Your task to perform on an android device: Open Youtube and go to "Your channel" Image 0: 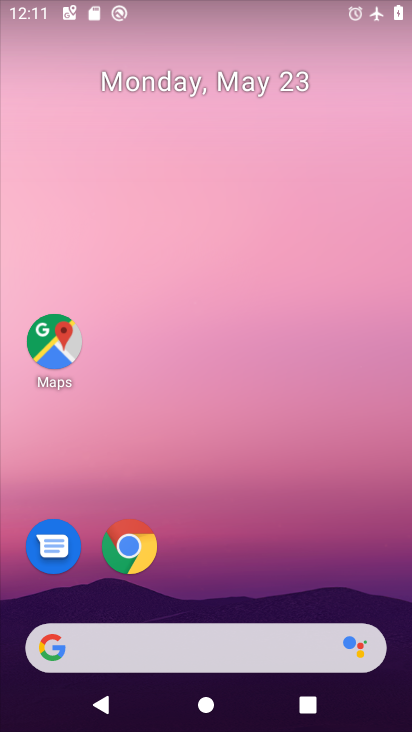
Step 0: drag from (210, 635) to (277, 30)
Your task to perform on an android device: Open Youtube and go to "Your channel" Image 1: 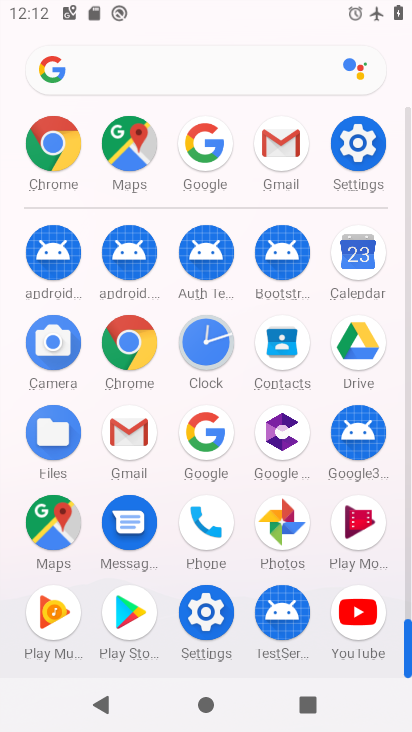
Step 1: click (364, 616)
Your task to perform on an android device: Open Youtube and go to "Your channel" Image 2: 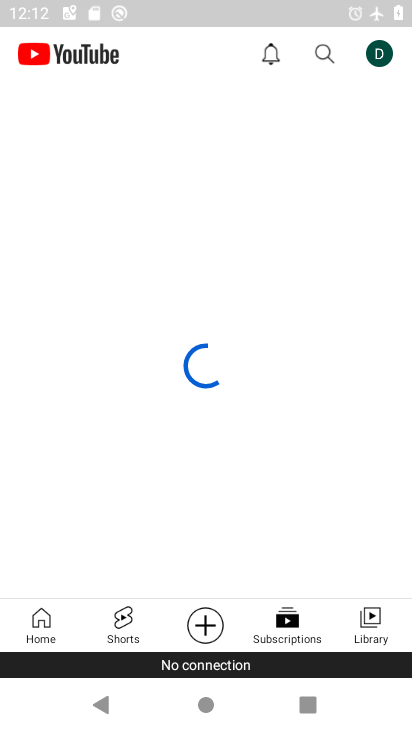
Step 2: click (380, 71)
Your task to perform on an android device: Open Youtube and go to "Your channel" Image 3: 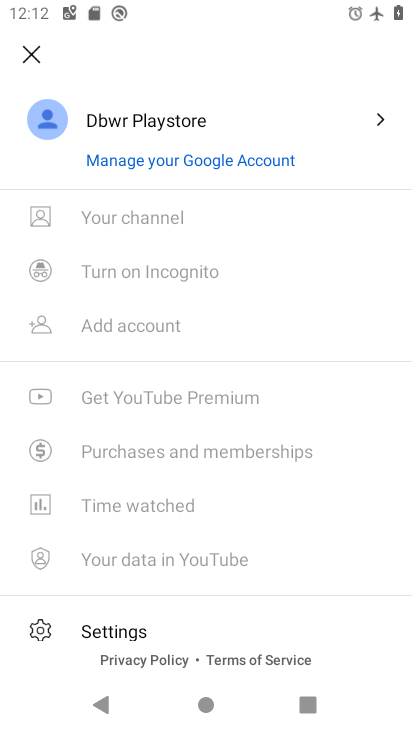
Step 3: click (202, 214)
Your task to perform on an android device: Open Youtube and go to "Your channel" Image 4: 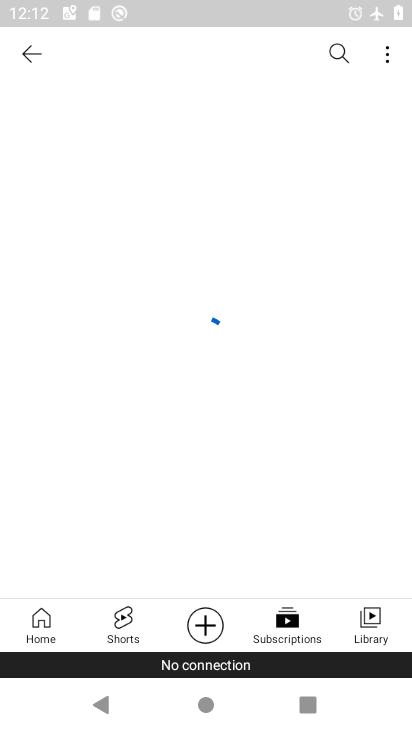
Step 4: task complete